Your task to perform on an android device: add a contact Image 0: 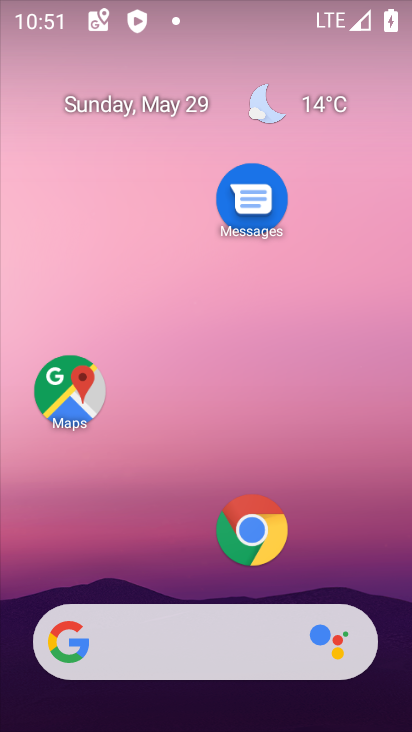
Step 0: drag from (169, 572) to (207, 250)
Your task to perform on an android device: add a contact Image 1: 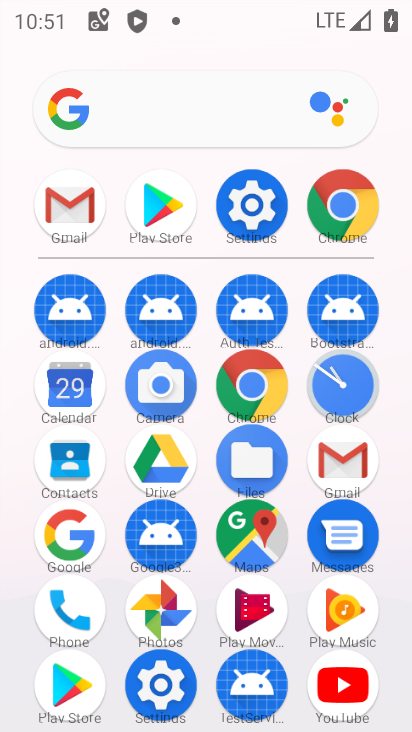
Step 1: click (62, 476)
Your task to perform on an android device: add a contact Image 2: 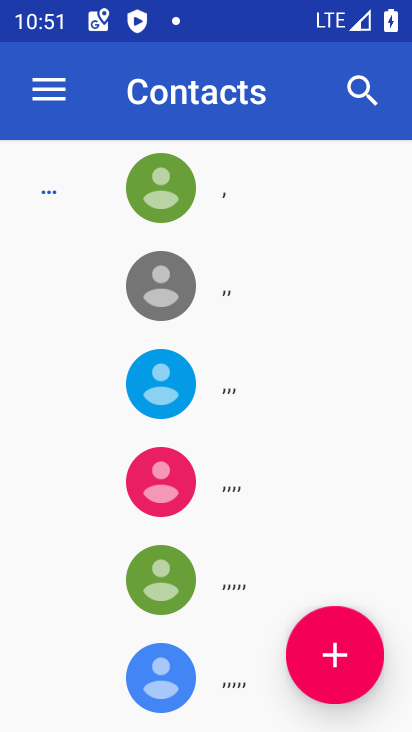
Step 2: click (358, 660)
Your task to perform on an android device: add a contact Image 3: 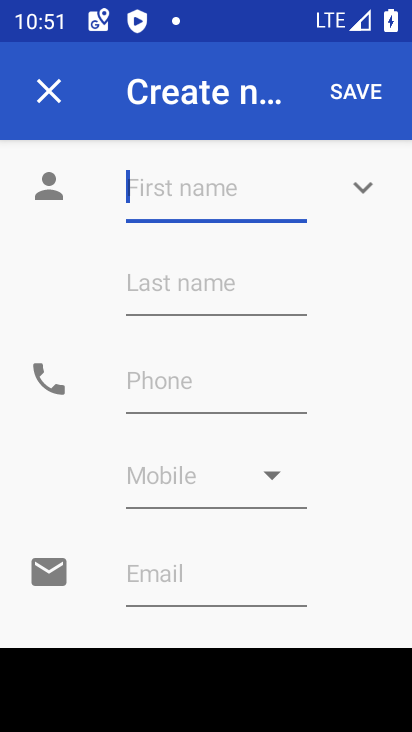
Step 3: type "fiction"
Your task to perform on an android device: add a contact Image 4: 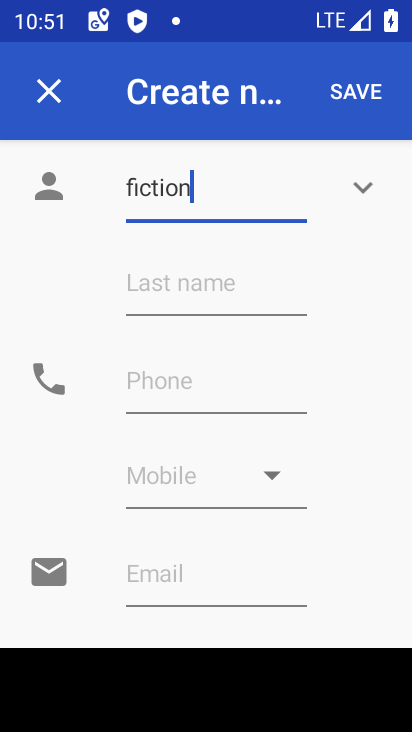
Step 4: click (382, 97)
Your task to perform on an android device: add a contact Image 5: 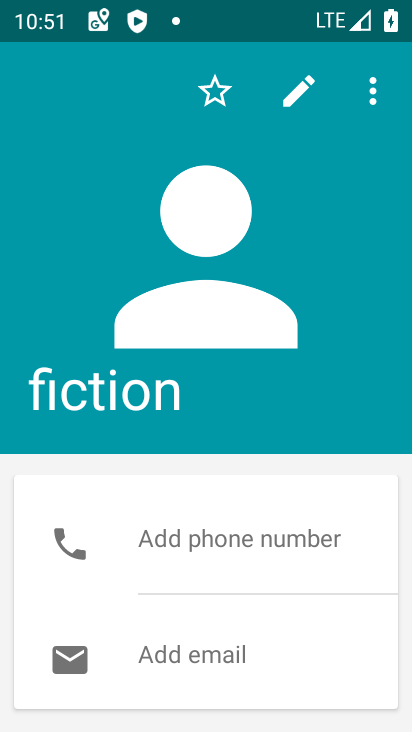
Step 5: task complete